Your task to perform on an android device: move an email to a new category in the gmail app Image 0: 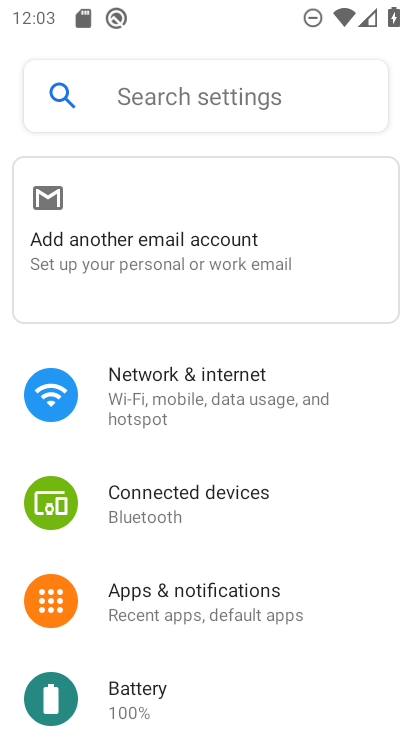
Step 0: drag from (229, 673) to (234, 304)
Your task to perform on an android device: move an email to a new category in the gmail app Image 1: 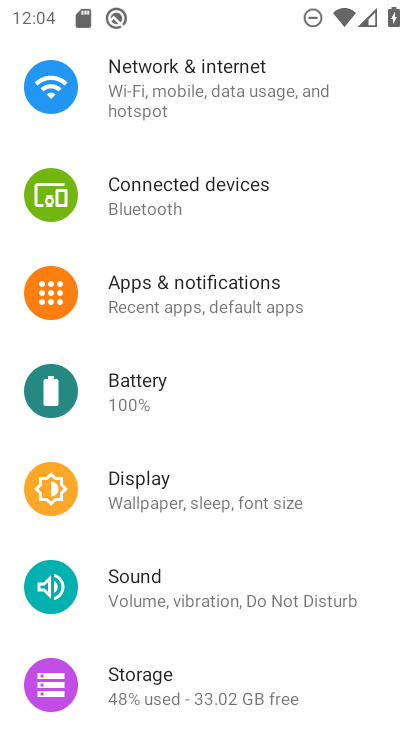
Step 1: press home button
Your task to perform on an android device: move an email to a new category in the gmail app Image 2: 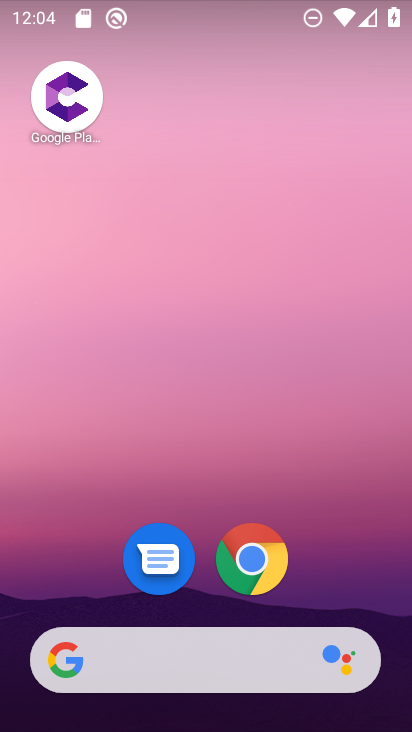
Step 2: drag from (364, 570) to (289, 165)
Your task to perform on an android device: move an email to a new category in the gmail app Image 3: 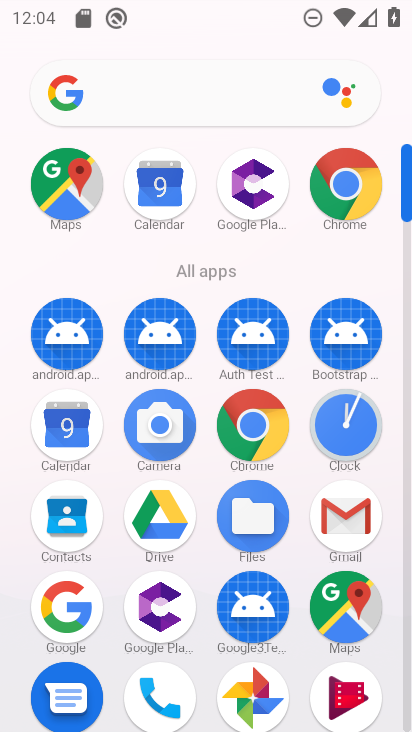
Step 3: click (349, 535)
Your task to perform on an android device: move an email to a new category in the gmail app Image 4: 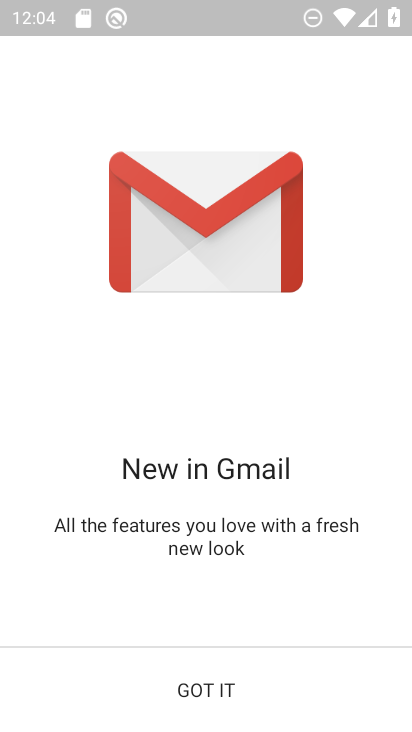
Step 4: click (290, 716)
Your task to perform on an android device: move an email to a new category in the gmail app Image 5: 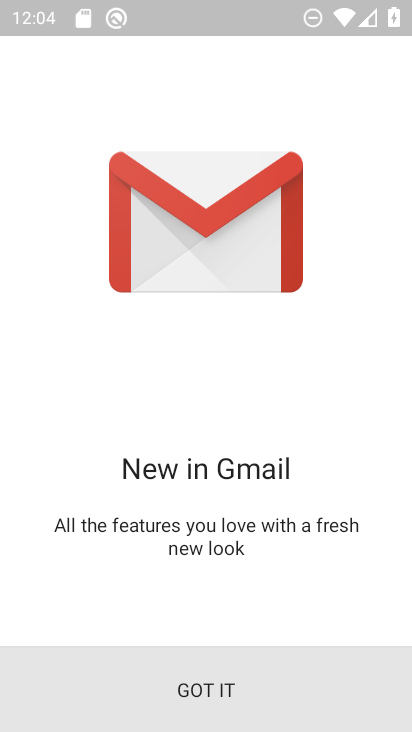
Step 5: click (289, 716)
Your task to perform on an android device: move an email to a new category in the gmail app Image 6: 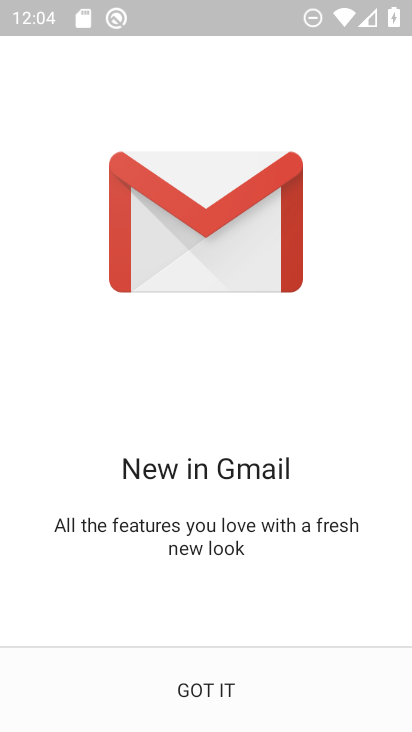
Step 6: click (289, 716)
Your task to perform on an android device: move an email to a new category in the gmail app Image 7: 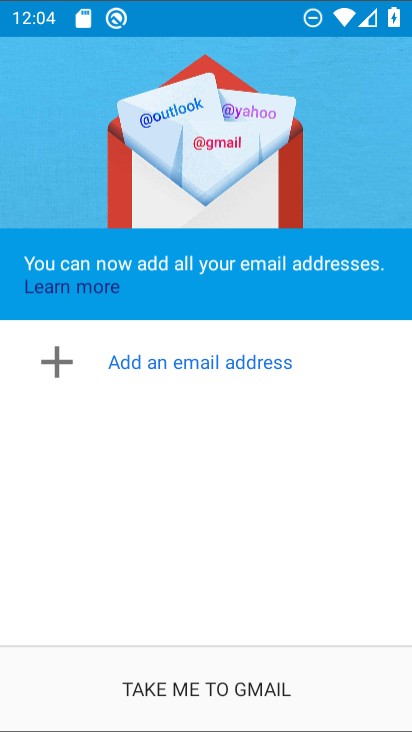
Step 7: click (289, 716)
Your task to perform on an android device: move an email to a new category in the gmail app Image 8: 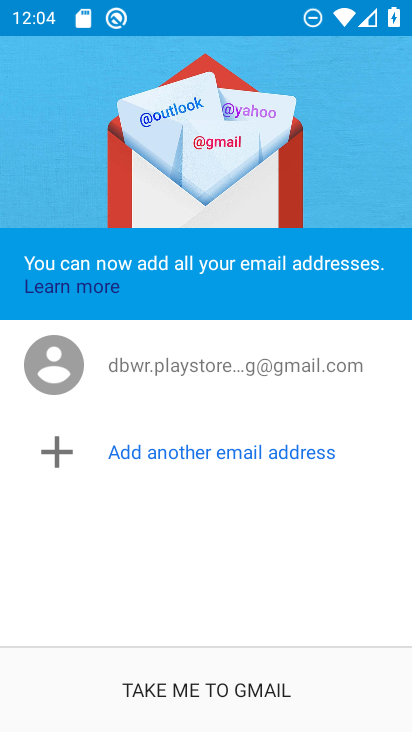
Step 8: click (289, 716)
Your task to perform on an android device: move an email to a new category in the gmail app Image 9: 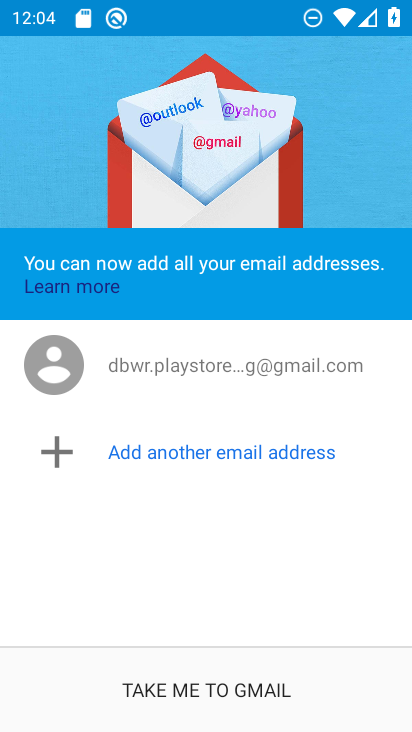
Step 9: click (289, 716)
Your task to perform on an android device: move an email to a new category in the gmail app Image 10: 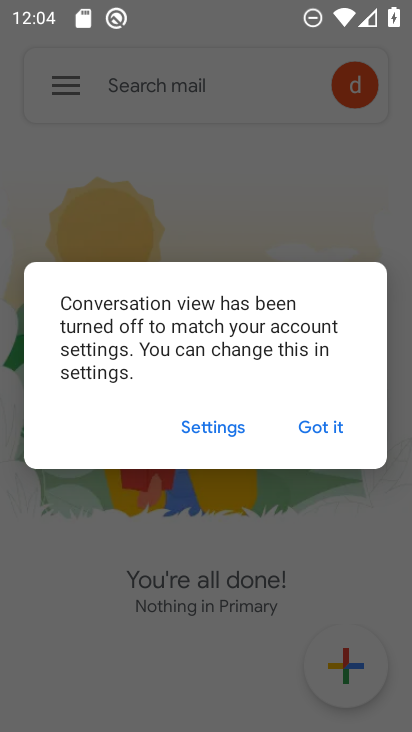
Step 10: click (114, 197)
Your task to perform on an android device: move an email to a new category in the gmail app Image 11: 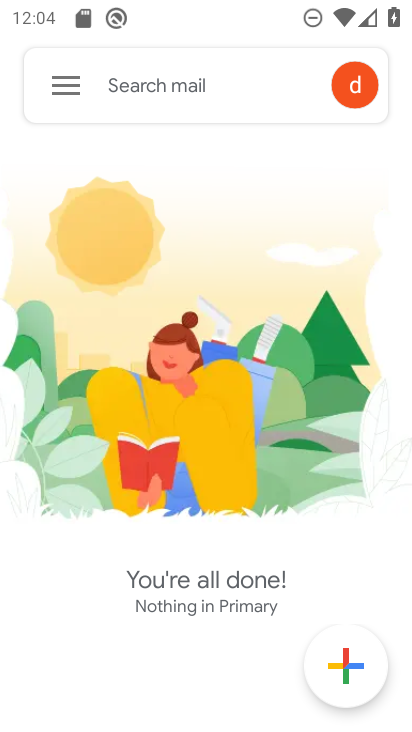
Step 11: click (77, 86)
Your task to perform on an android device: move an email to a new category in the gmail app Image 12: 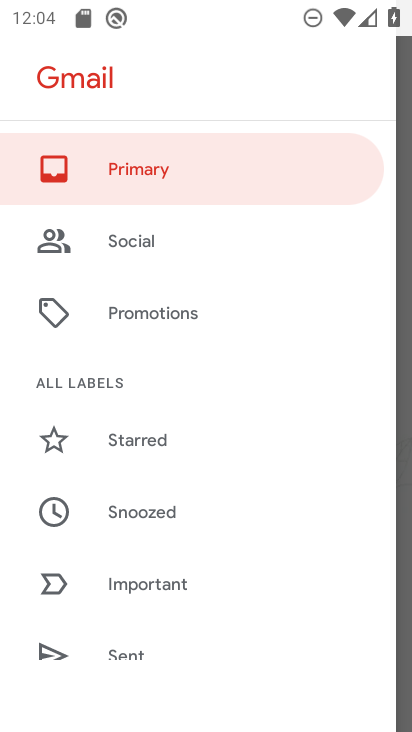
Step 12: task complete